Your task to perform on an android device: allow notifications from all sites in the chrome app Image 0: 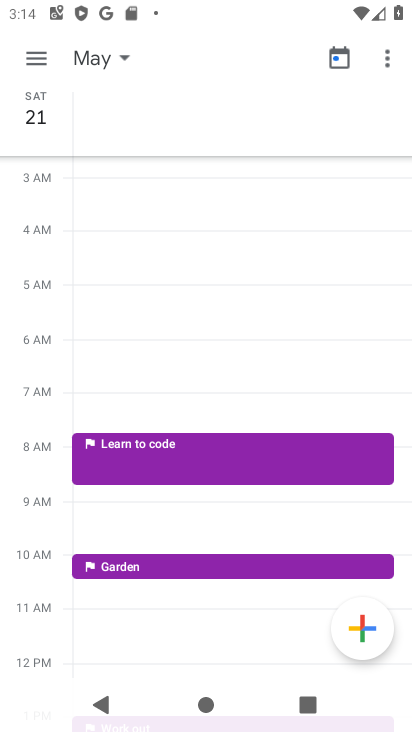
Step 0: press home button
Your task to perform on an android device: allow notifications from all sites in the chrome app Image 1: 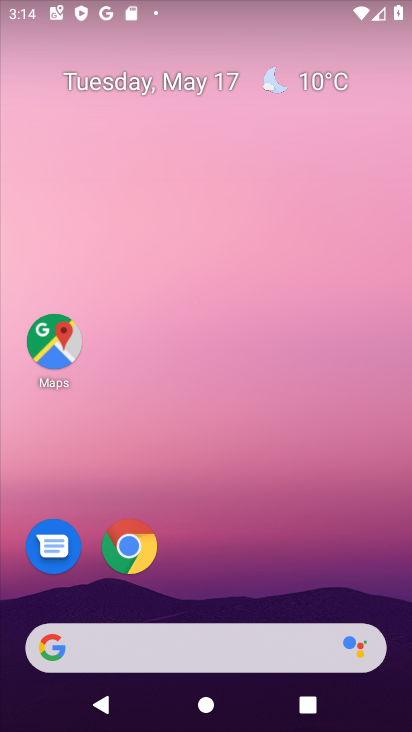
Step 1: drag from (204, 594) to (217, 134)
Your task to perform on an android device: allow notifications from all sites in the chrome app Image 2: 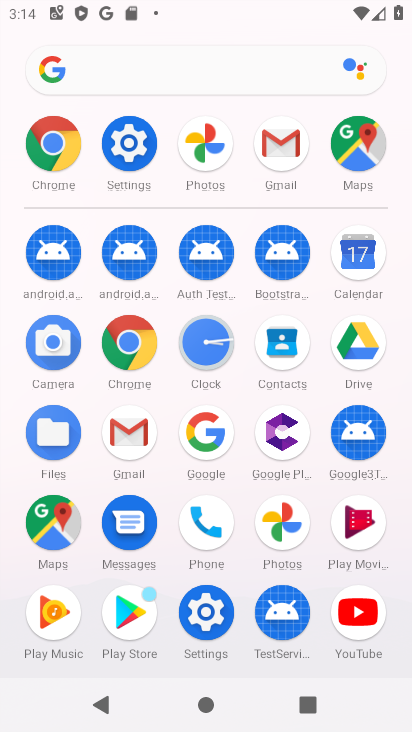
Step 2: click (138, 338)
Your task to perform on an android device: allow notifications from all sites in the chrome app Image 3: 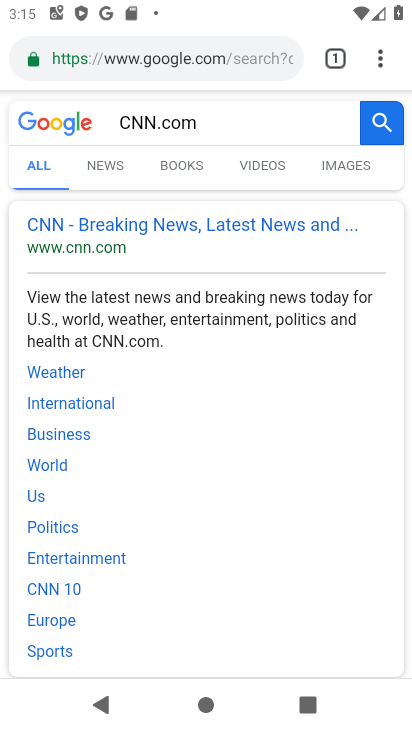
Step 3: click (375, 64)
Your task to perform on an android device: allow notifications from all sites in the chrome app Image 4: 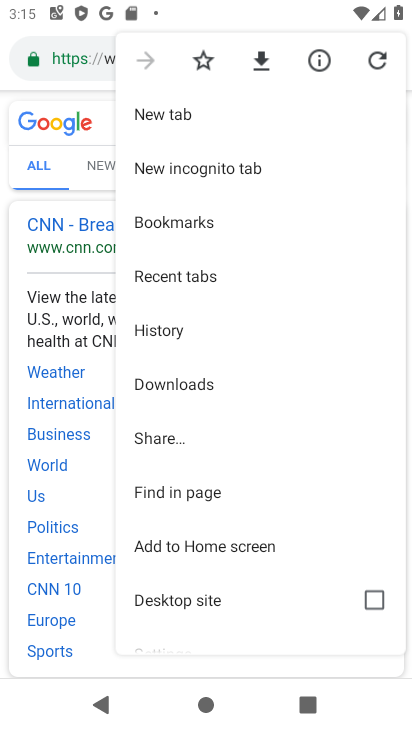
Step 4: drag from (187, 509) to (290, 103)
Your task to perform on an android device: allow notifications from all sites in the chrome app Image 5: 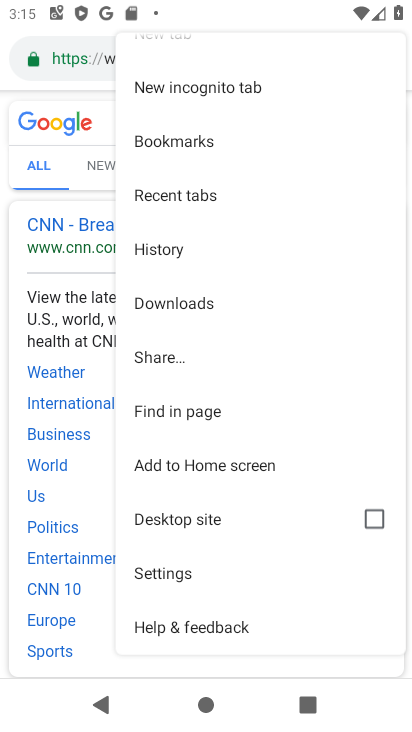
Step 5: click (181, 580)
Your task to perform on an android device: allow notifications from all sites in the chrome app Image 6: 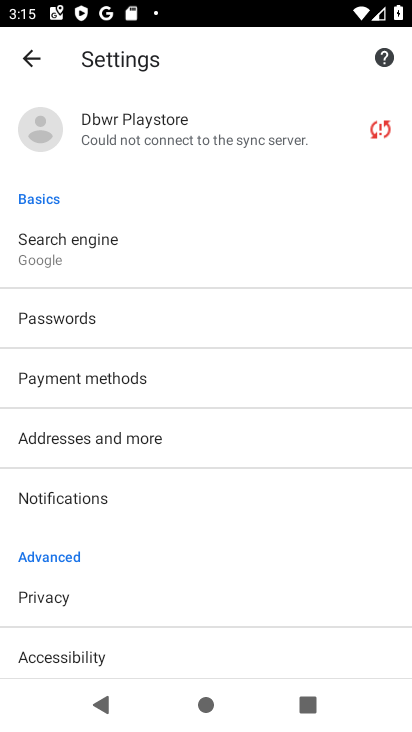
Step 6: drag from (112, 484) to (177, 143)
Your task to perform on an android device: allow notifications from all sites in the chrome app Image 7: 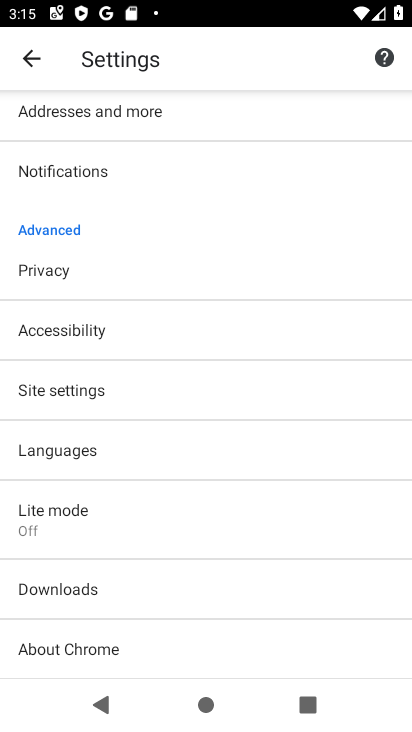
Step 7: click (100, 393)
Your task to perform on an android device: allow notifications from all sites in the chrome app Image 8: 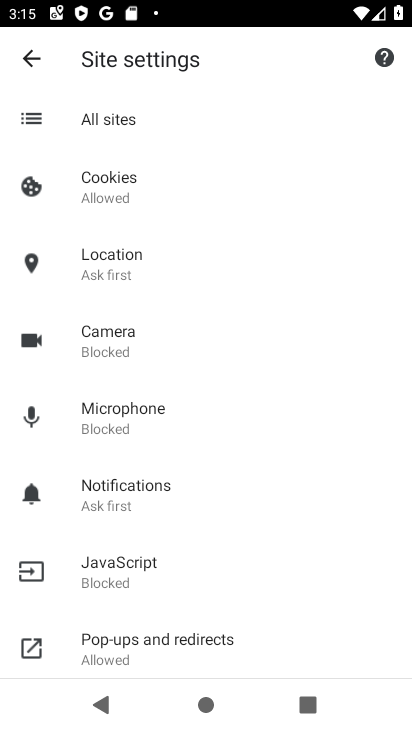
Step 8: click (119, 485)
Your task to perform on an android device: allow notifications from all sites in the chrome app Image 9: 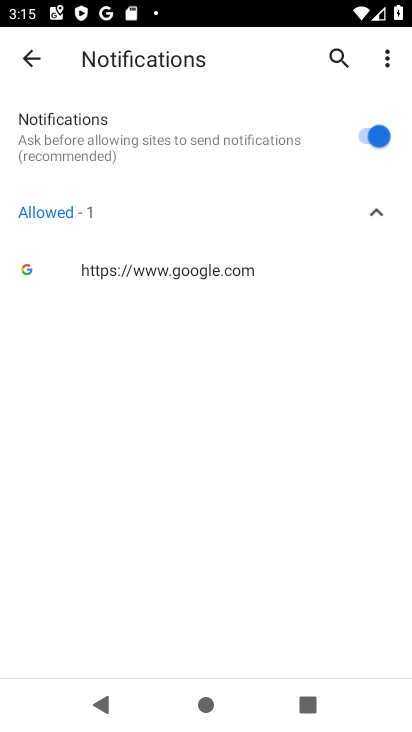
Step 9: task complete